Your task to perform on an android device: delete a single message in the gmail app Image 0: 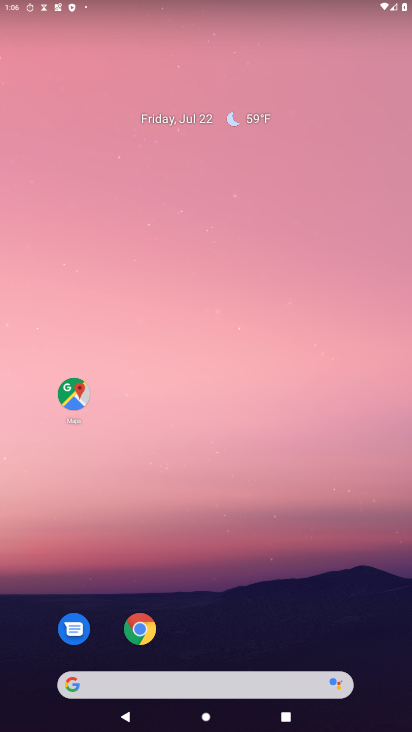
Step 0: drag from (214, 682) to (161, 166)
Your task to perform on an android device: delete a single message in the gmail app Image 1: 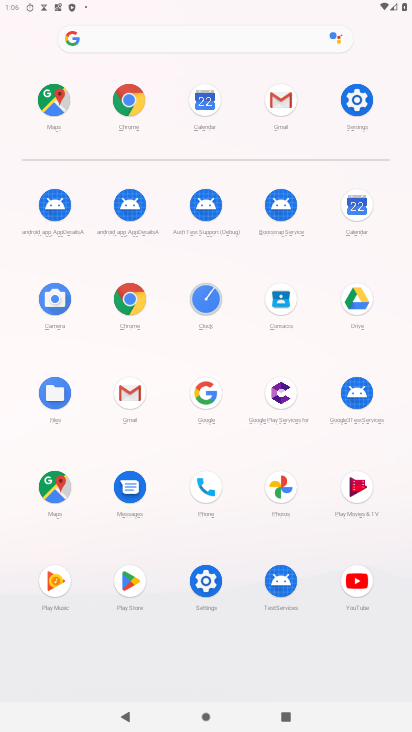
Step 1: click (118, 392)
Your task to perform on an android device: delete a single message in the gmail app Image 2: 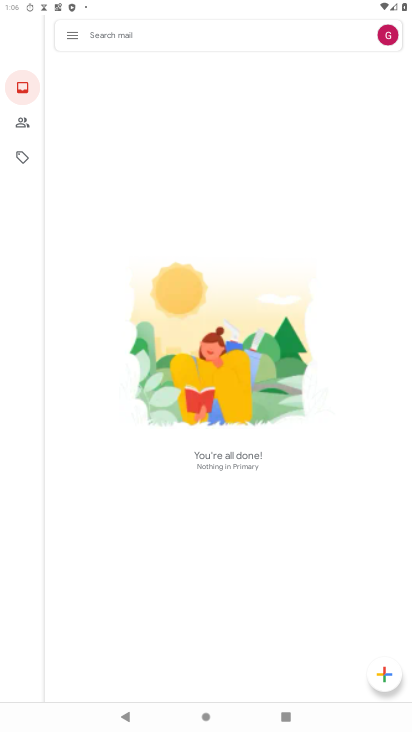
Step 2: click (67, 30)
Your task to perform on an android device: delete a single message in the gmail app Image 3: 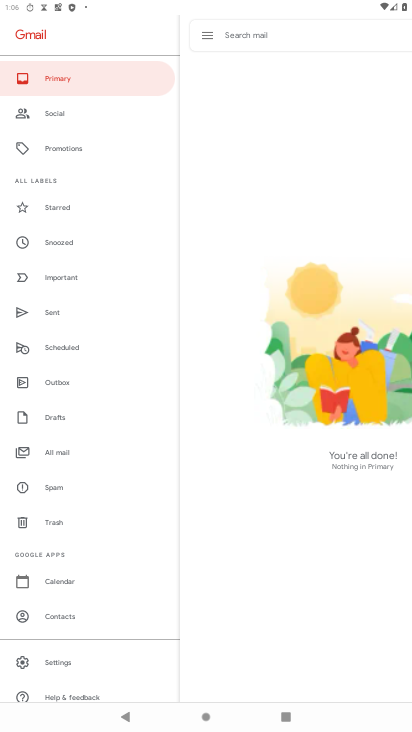
Step 3: task complete